Your task to perform on an android device: change the upload size in google photos Image 0: 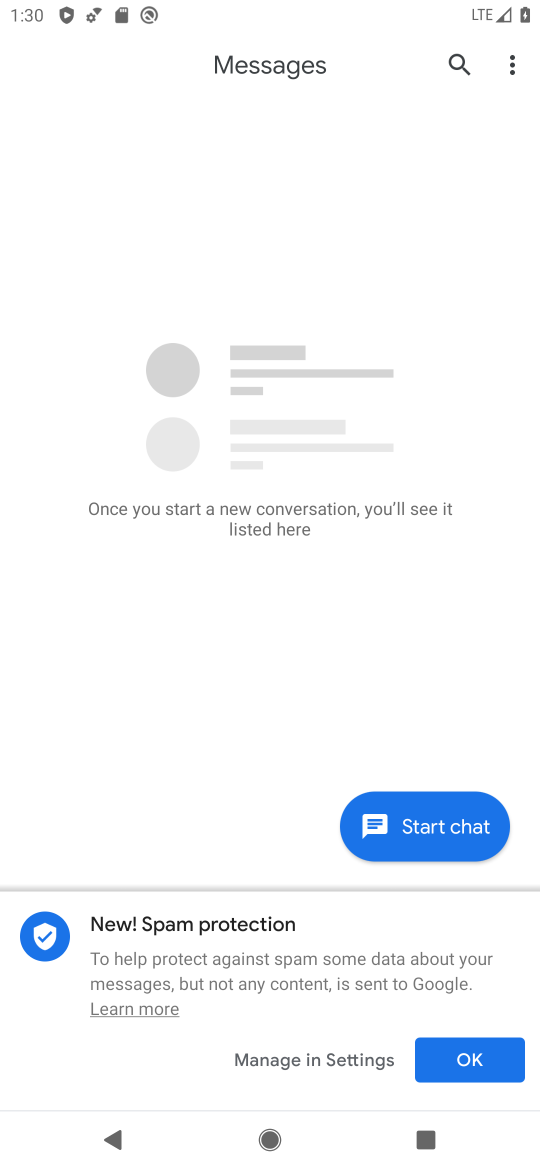
Step 0: press home button
Your task to perform on an android device: change the upload size in google photos Image 1: 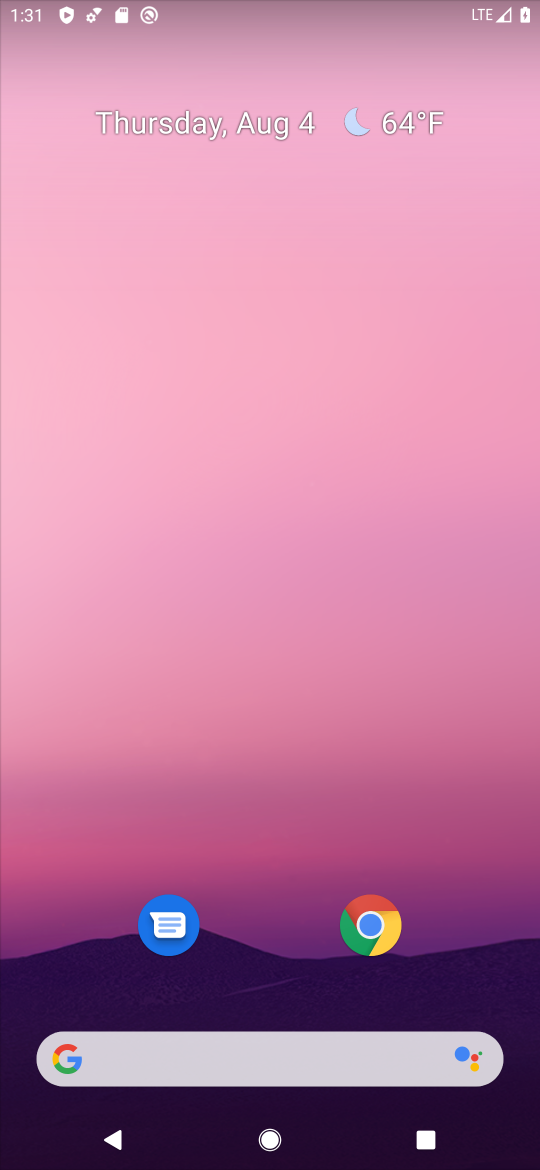
Step 1: drag from (287, 902) to (369, 16)
Your task to perform on an android device: change the upload size in google photos Image 2: 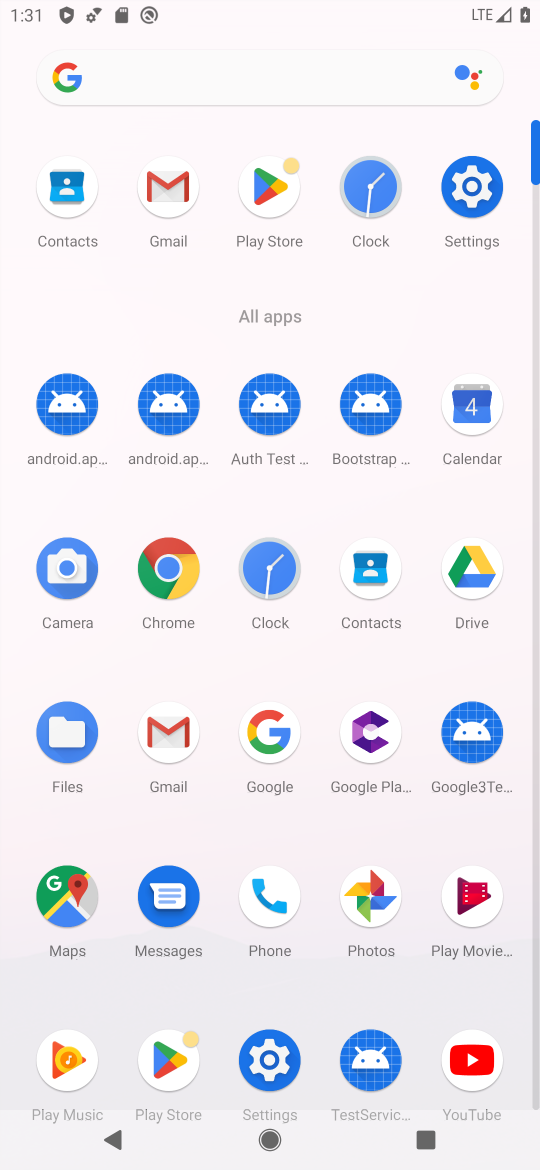
Step 2: click (365, 895)
Your task to perform on an android device: change the upload size in google photos Image 3: 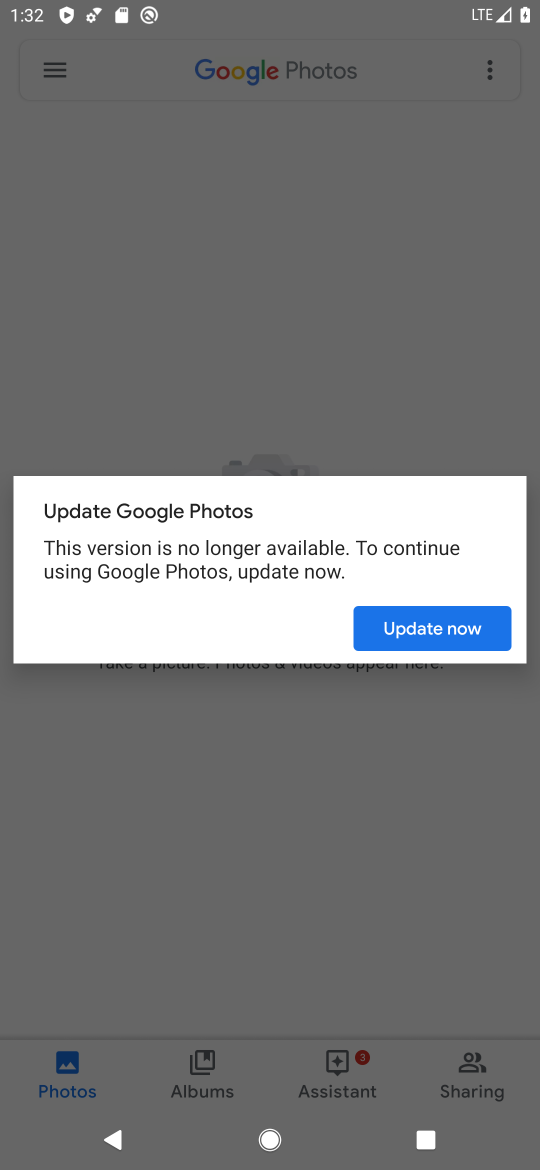
Step 3: task complete